Your task to perform on an android device: Open the map Image 0: 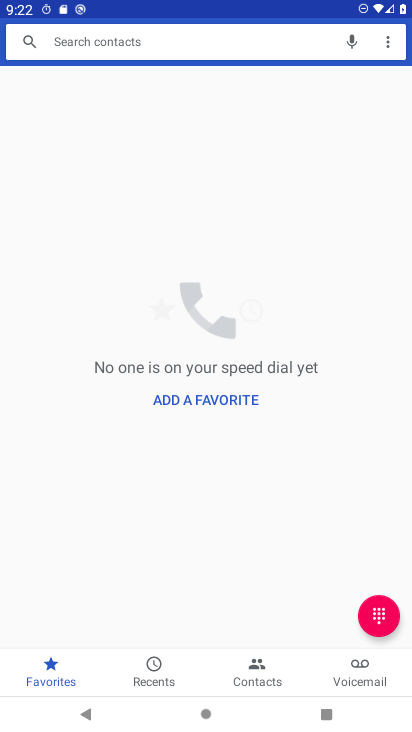
Step 0: press back button
Your task to perform on an android device: Open the map Image 1: 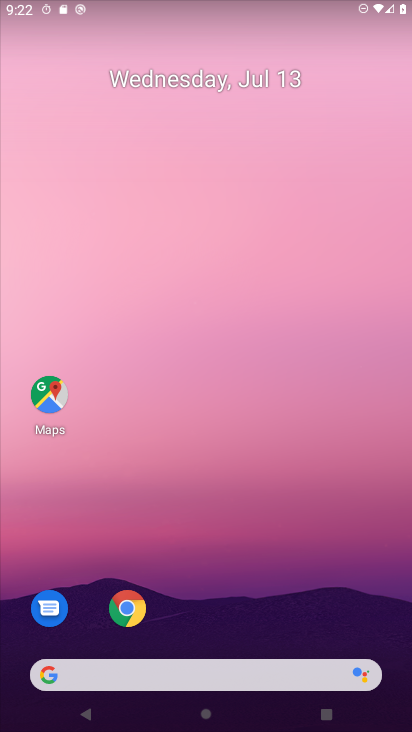
Step 1: drag from (272, 693) to (236, 247)
Your task to perform on an android device: Open the map Image 2: 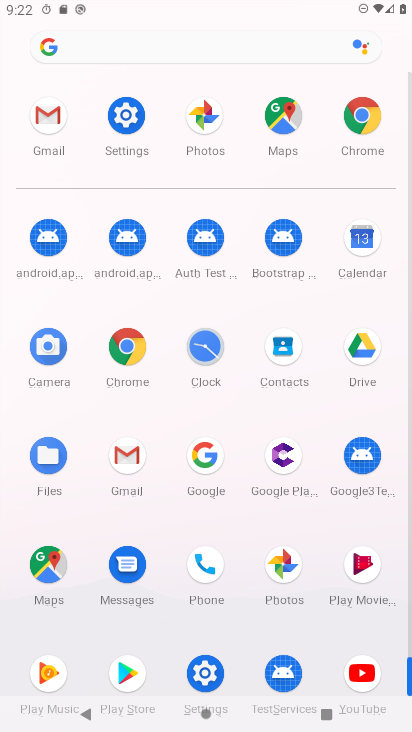
Step 2: click (45, 566)
Your task to perform on an android device: Open the map Image 3: 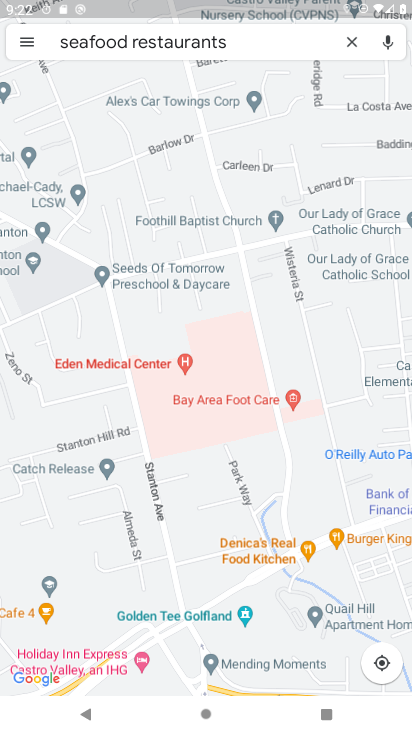
Step 3: task complete